Your task to perform on an android device: open device folders in google photos Image 0: 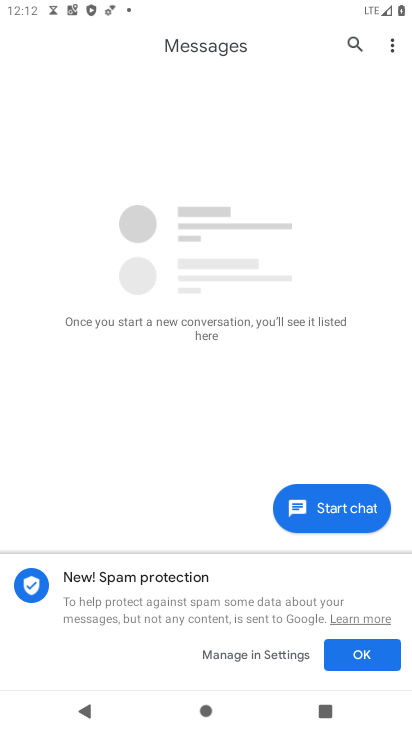
Step 0: press home button
Your task to perform on an android device: open device folders in google photos Image 1: 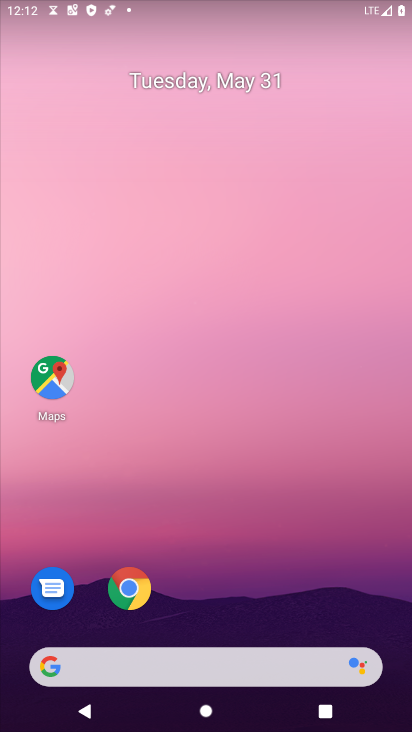
Step 1: drag from (210, 600) to (244, 107)
Your task to perform on an android device: open device folders in google photos Image 2: 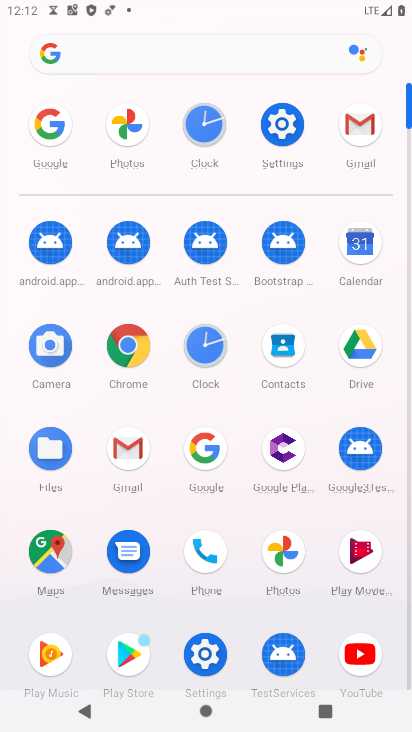
Step 2: click (276, 546)
Your task to perform on an android device: open device folders in google photos Image 3: 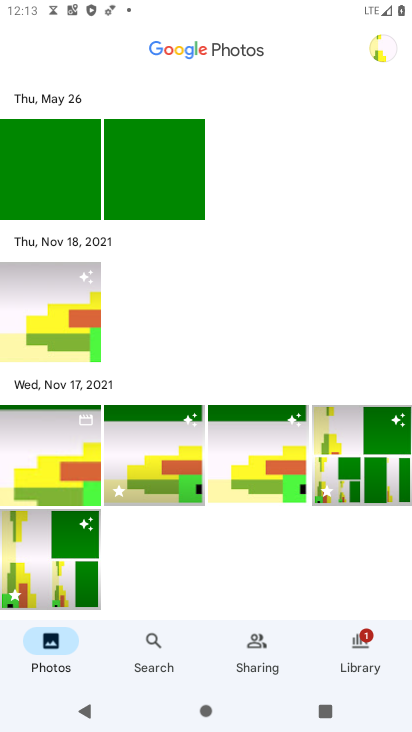
Step 3: click (165, 637)
Your task to perform on an android device: open device folders in google photos Image 4: 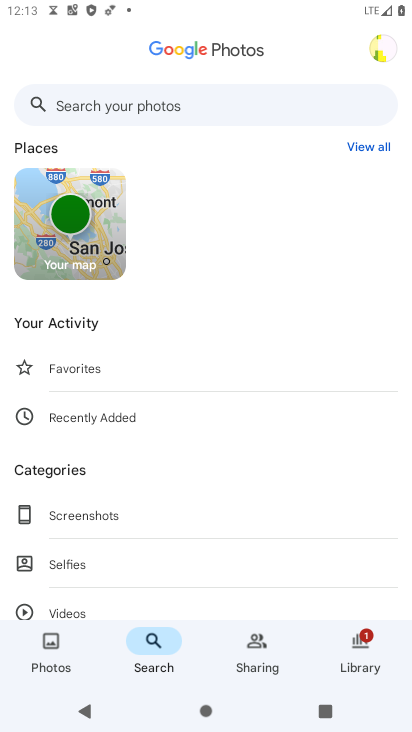
Step 4: click (102, 105)
Your task to perform on an android device: open device folders in google photos Image 5: 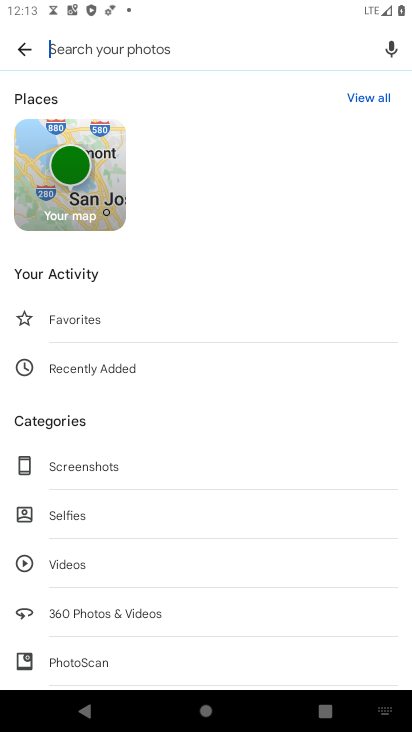
Step 5: type "device"
Your task to perform on an android device: open device folders in google photos Image 6: 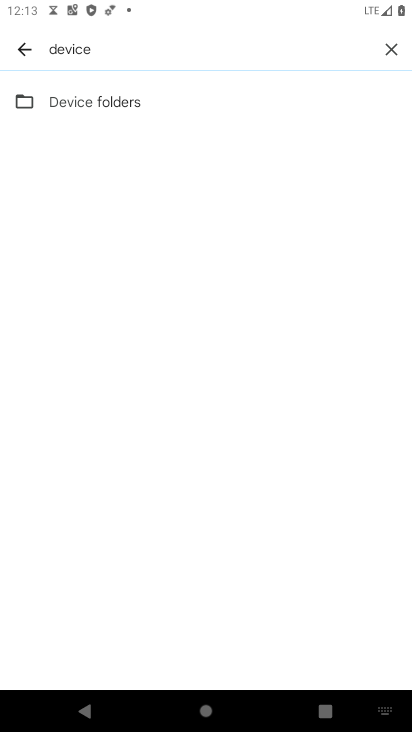
Step 6: click (131, 94)
Your task to perform on an android device: open device folders in google photos Image 7: 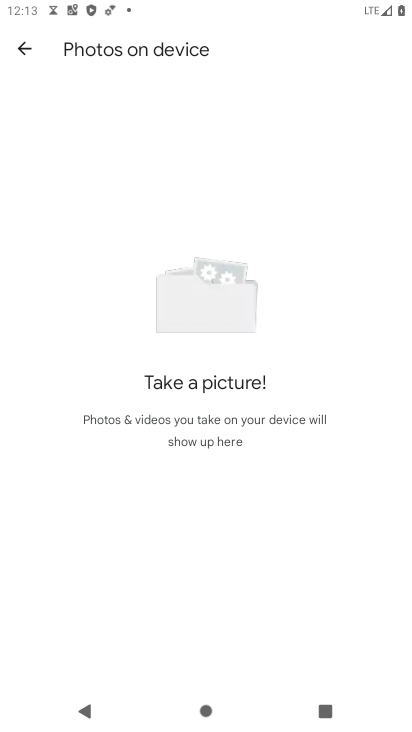
Step 7: task complete